Your task to perform on an android device: check google app version Image 0: 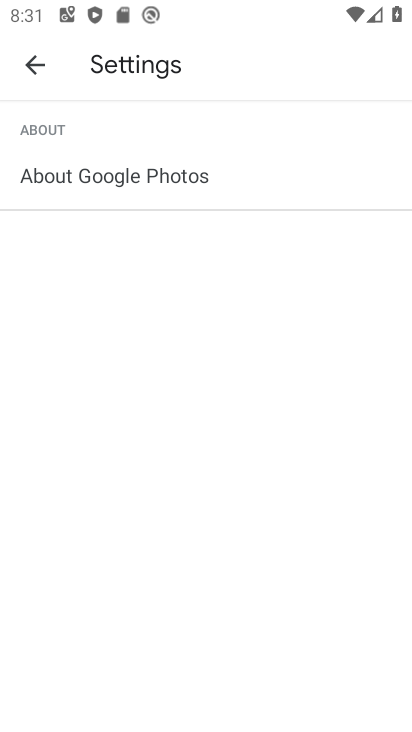
Step 0: press home button
Your task to perform on an android device: check google app version Image 1: 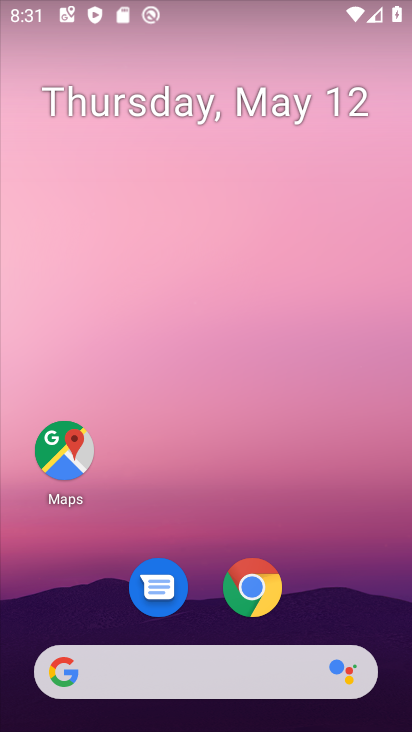
Step 1: drag from (251, 456) to (277, 187)
Your task to perform on an android device: check google app version Image 2: 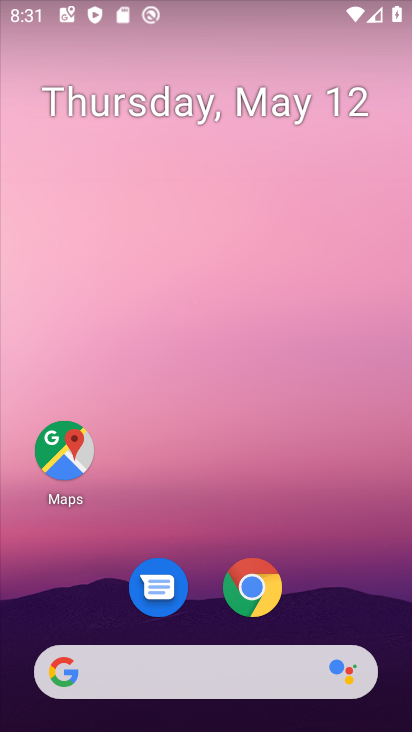
Step 2: drag from (304, 580) to (343, 113)
Your task to perform on an android device: check google app version Image 3: 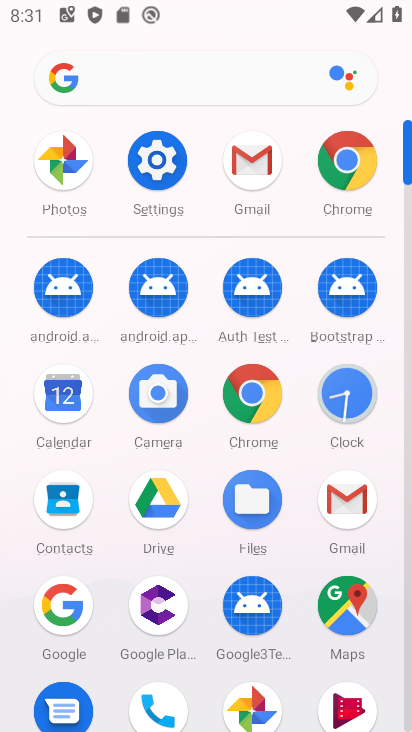
Step 3: click (76, 596)
Your task to perform on an android device: check google app version Image 4: 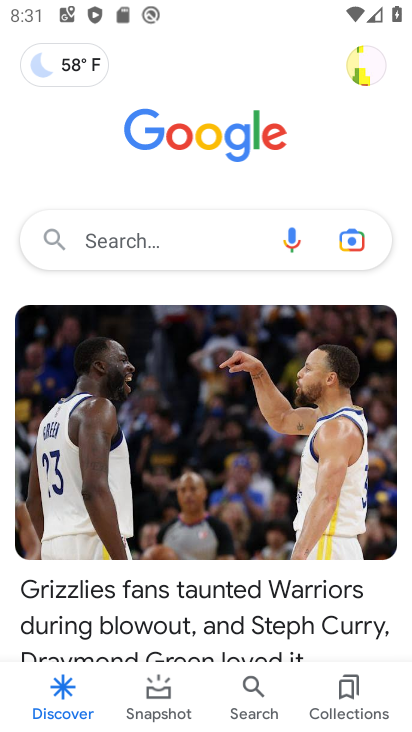
Step 4: click (364, 55)
Your task to perform on an android device: check google app version Image 5: 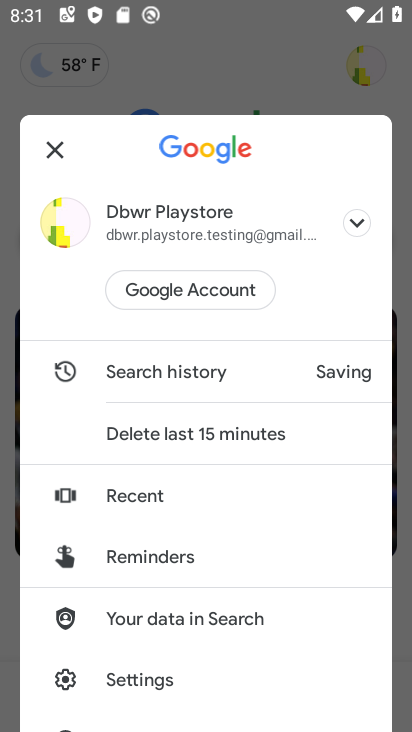
Step 5: click (128, 690)
Your task to perform on an android device: check google app version Image 6: 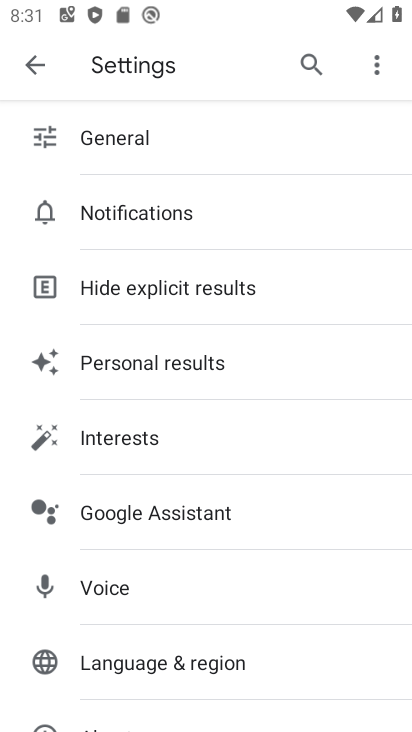
Step 6: drag from (173, 596) to (276, 234)
Your task to perform on an android device: check google app version Image 7: 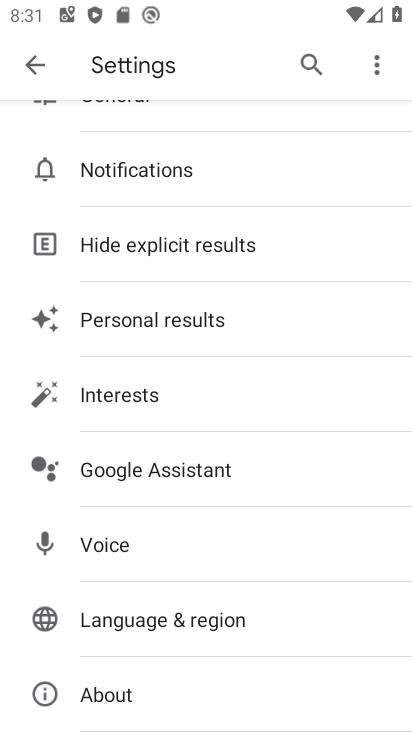
Step 7: click (170, 702)
Your task to perform on an android device: check google app version Image 8: 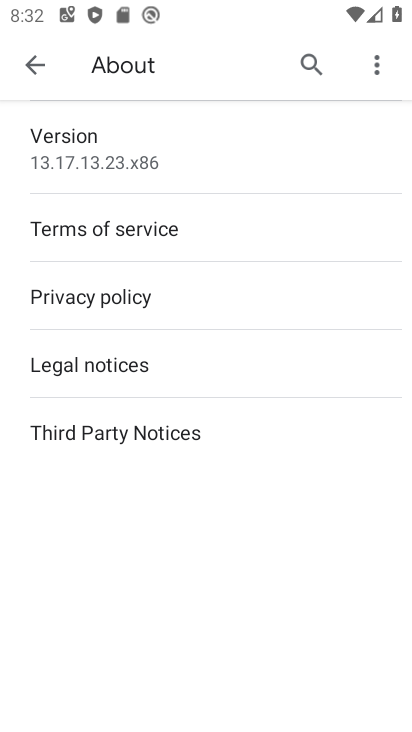
Step 8: task complete